Your task to perform on an android device: Open Yahoo.com Image 0: 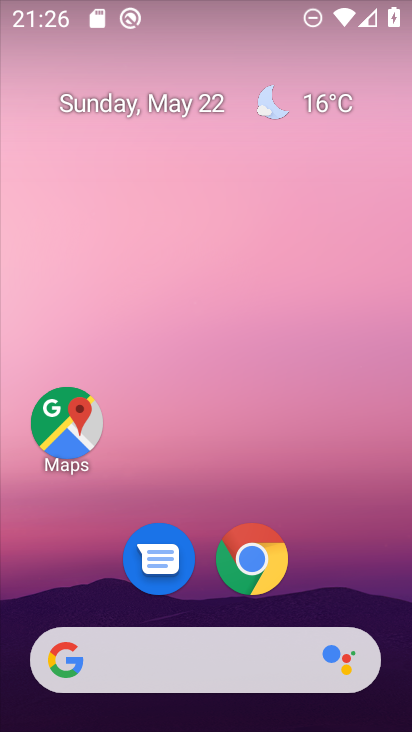
Step 0: press home button
Your task to perform on an android device: Open Yahoo.com Image 1: 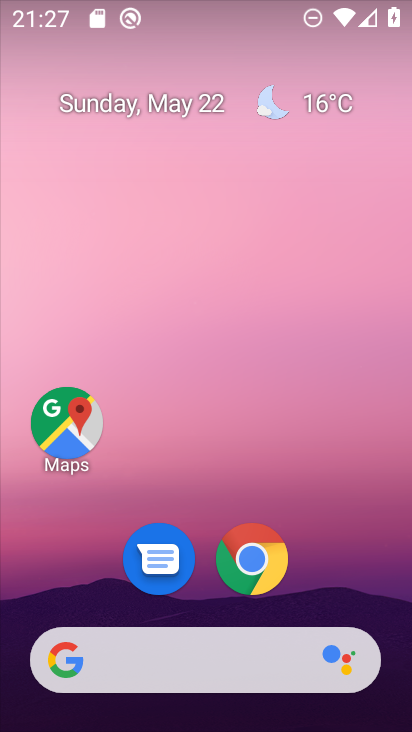
Step 1: drag from (250, 644) to (246, 196)
Your task to perform on an android device: Open Yahoo.com Image 2: 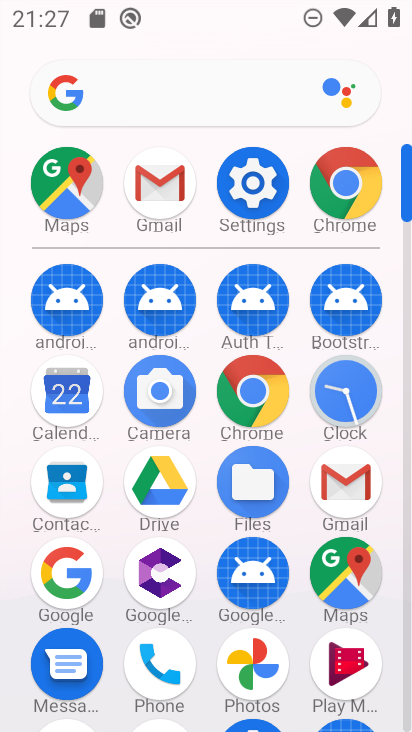
Step 2: click (333, 197)
Your task to perform on an android device: Open Yahoo.com Image 3: 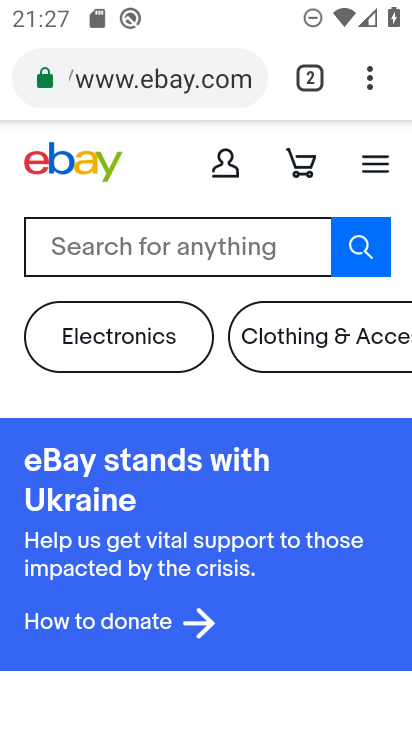
Step 3: click (163, 82)
Your task to perform on an android device: Open Yahoo.com Image 4: 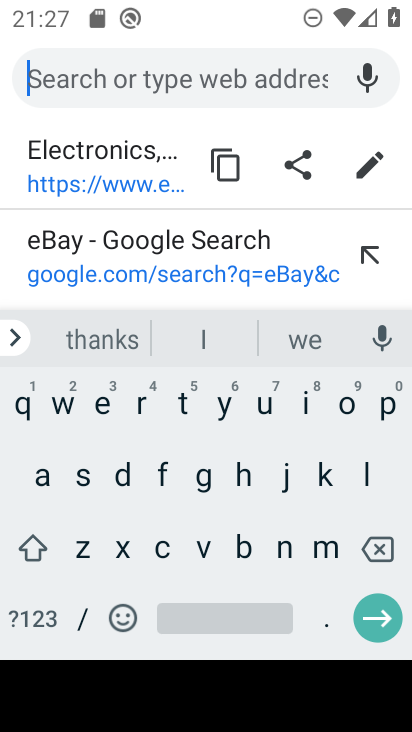
Step 4: click (230, 409)
Your task to perform on an android device: Open Yahoo.com Image 5: 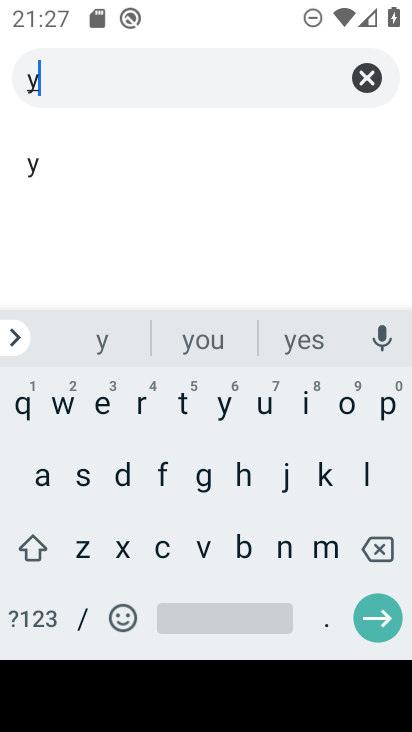
Step 5: click (34, 481)
Your task to perform on an android device: Open Yahoo.com Image 6: 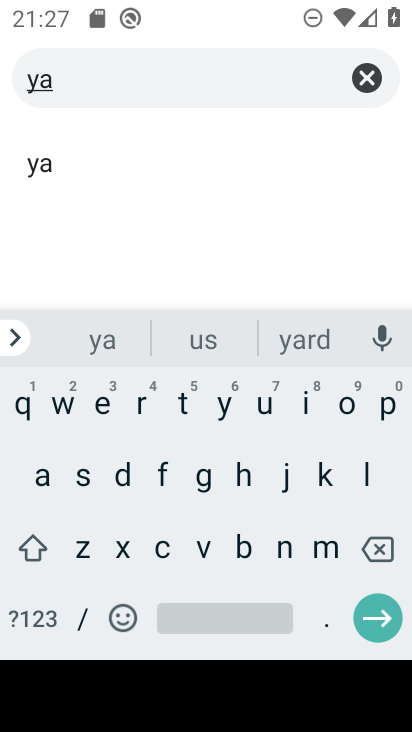
Step 6: click (240, 475)
Your task to perform on an android device: Open Yahoo.com Image 7: 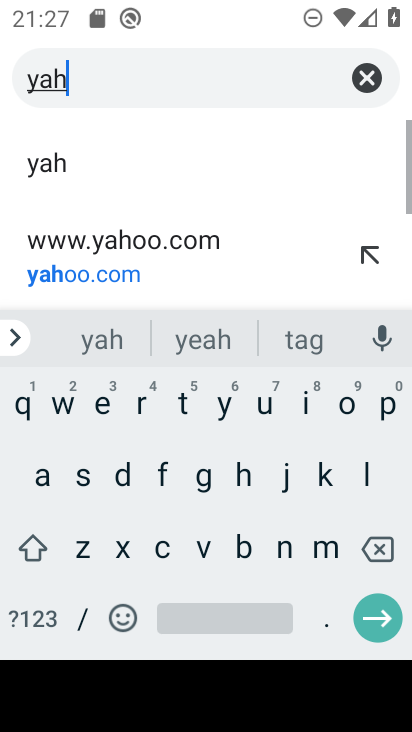
Step 7: click (149, 259)
Your task to perform on an android device: Open Yahoo.com Image 8: 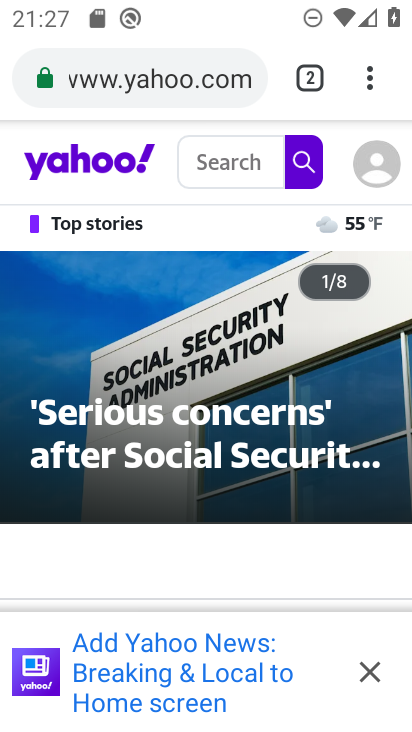
Step 8: task complete